Your task to perform on an android device: visit the assistant section in the google photos Image 0: 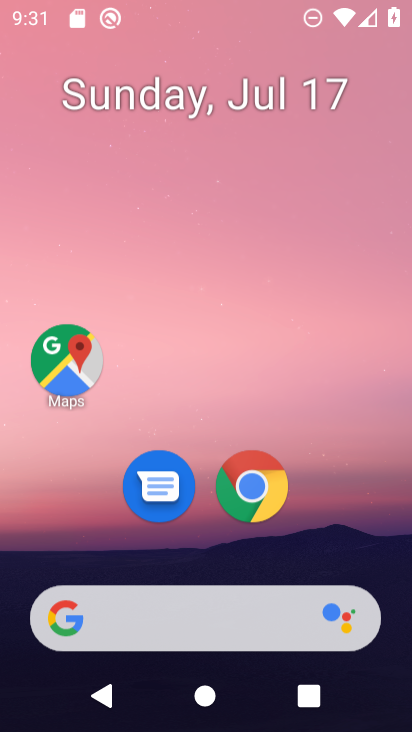
Step 0: press home button
Your task to perform on an android device: visit the assistant section in the google photos Image 1: 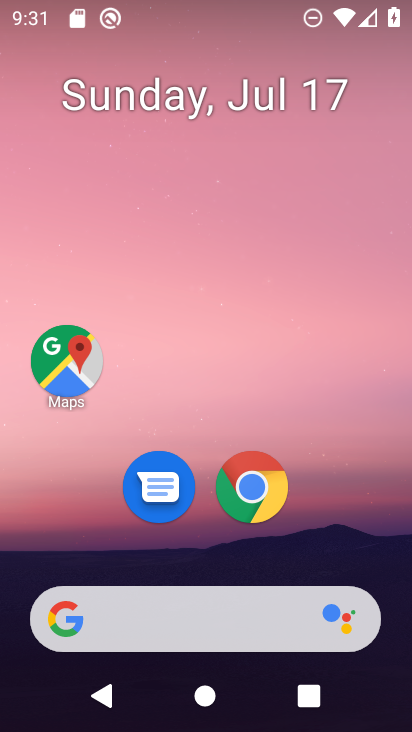
Step 1: drag from (348, 544) to (279, 4)
Your task to perform on an android device: visit the assistant section in the google photos Image 2: 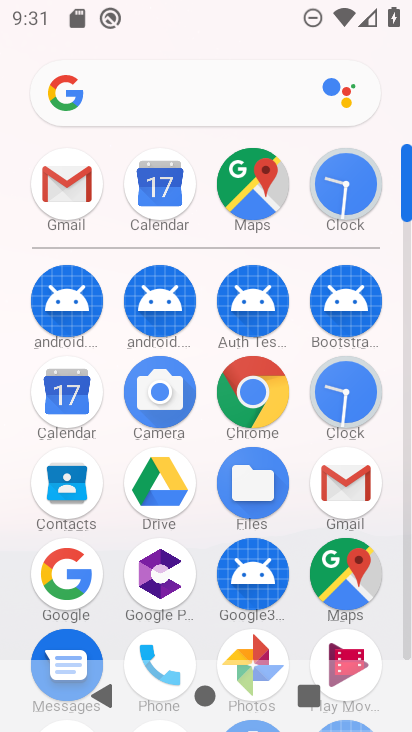
Step 2: click (252, 669)
Your task to perform on an android device: visit the assistant section in the google photos Image 3: 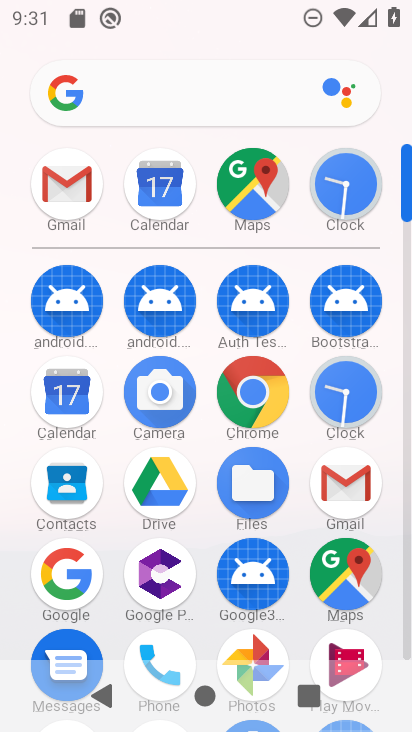
Step 3: click (251, 661)
Your task to perform on an android device: visit the assistant section in the google photos Image 4: 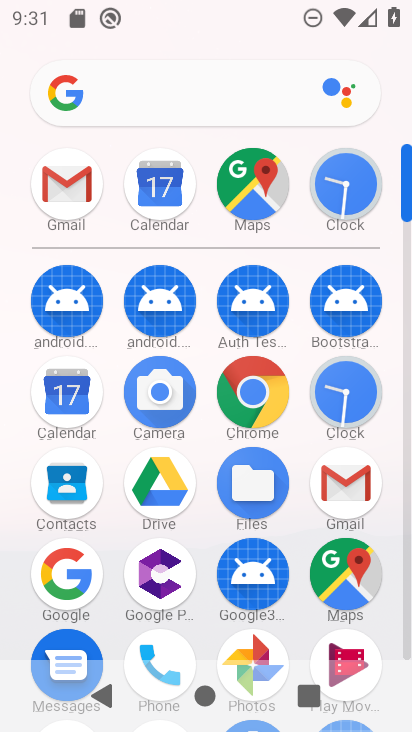
Step 4: click (260, 664)
Your task to perform on an android device: visit the assistant section in the google photos Image 5: 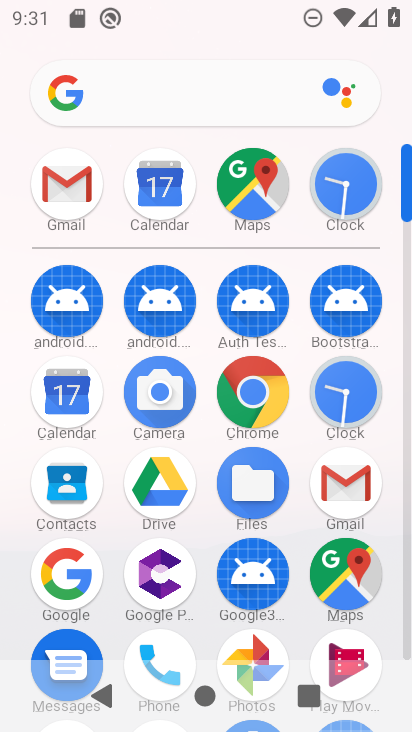
Step 5: drag from (391, 521) to (397, 177)
Your task to perform on an android device: visit the assistant section in the google photos Image 6: 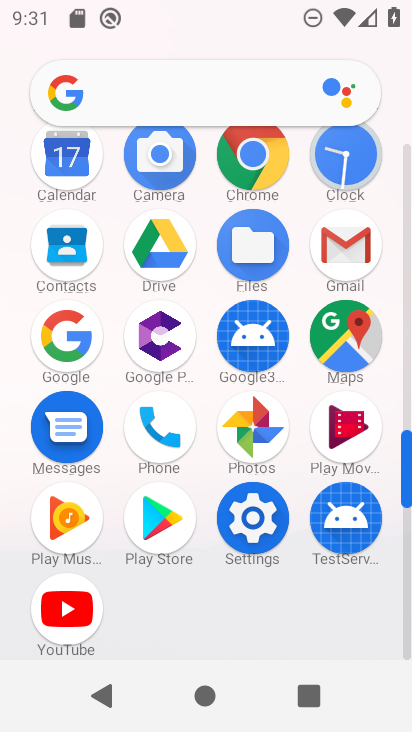
Step 6: click (250, 416)
Your task to perform on an android device: visit the assistant section in the google photos Image 7: 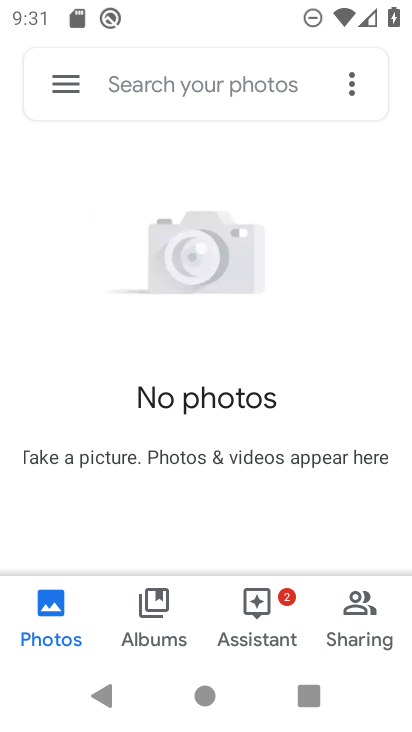
Step 7: click (253, 605)
Your task to perform on an android device: visit the assistant section in the google photos Image 8: 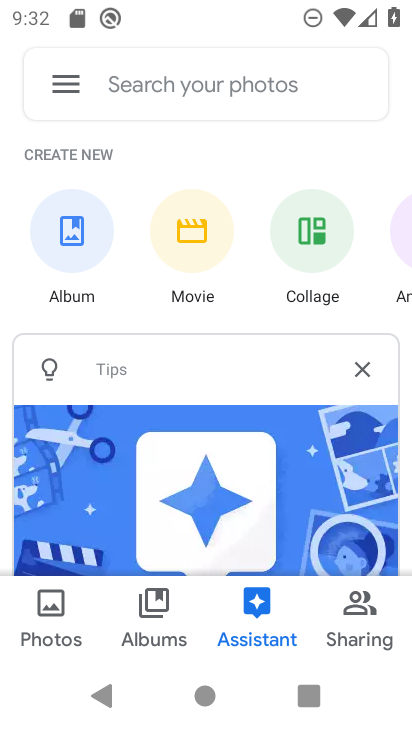
Step 8: task complete